Your task to perform on an android device: Go to wifi settings Image 0: 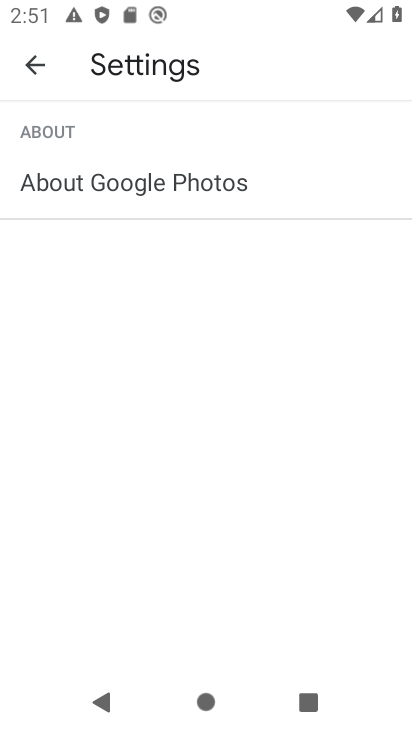
Step 0: press home button
Your task to perform on an android device: Go to wifi settings Image 1: 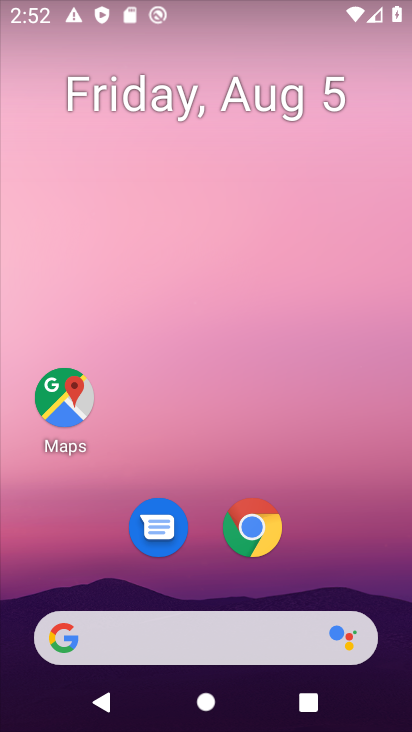
Step 1: drag from (210, 596) to (197, 218)
Your task to perform on an android device: Go to wifi settings Image 2: 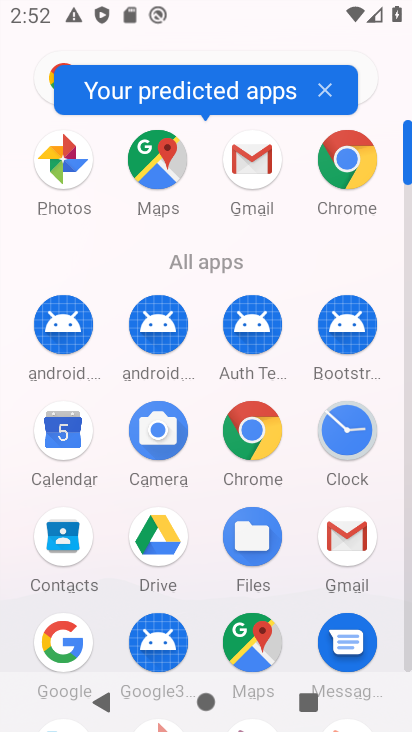
Step 2: drag from (255, 633) to (254, 300)
Your task to perform on an android device: Go to wifi settings Image 3: 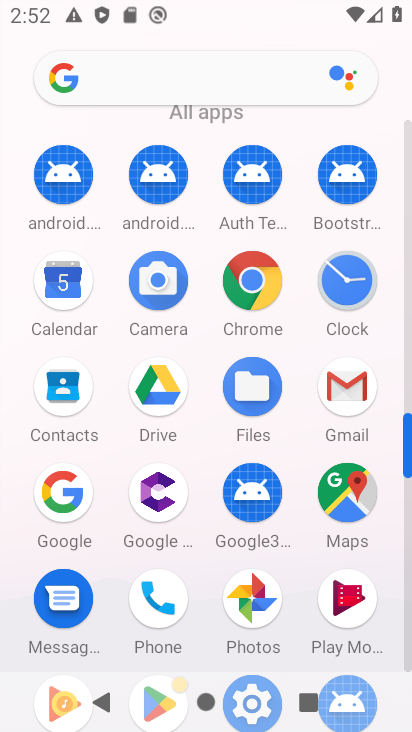
Step 3: drag from (266, 661) to (265, 387)
Your task to perform on an android device: Go to wifi settings Image 4: 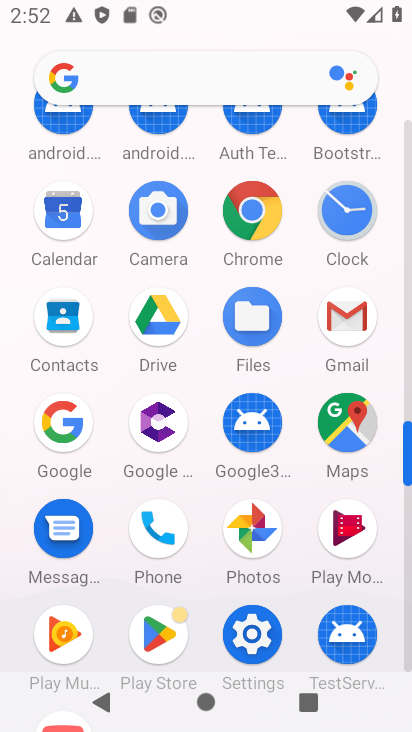
Step 4: click (250, 634)
Your task to perform on an android device: Go to wifi settings Image 5: 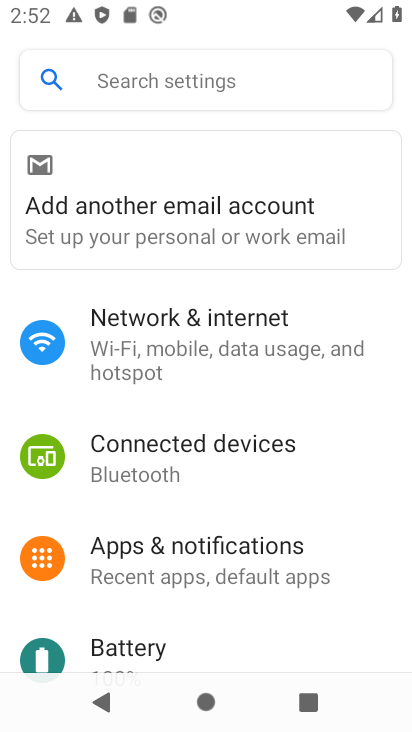
Step 5: click (171, 330)
Your task to perform on an android device: Go to wifi settings Image 6: 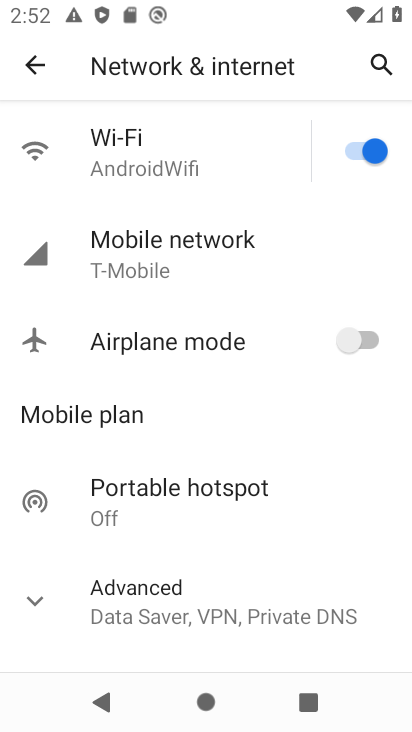
Step 6: click (121, 165)
Your task to perform on an android device: Go to wifi settings Image 7: 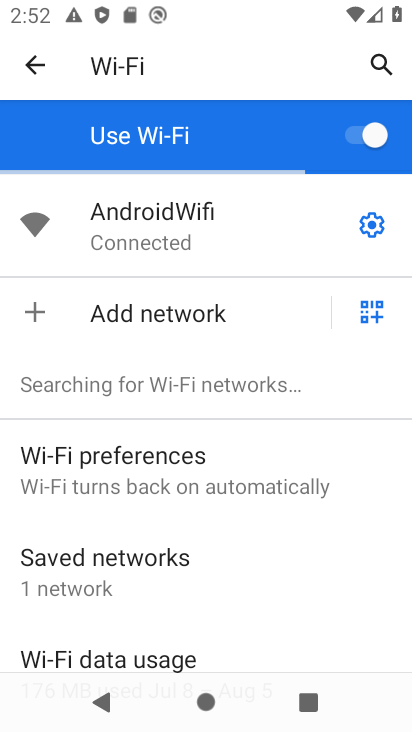
Step 7: task complete